Your task to perform on an android device: Open ESPN.com Image 0: 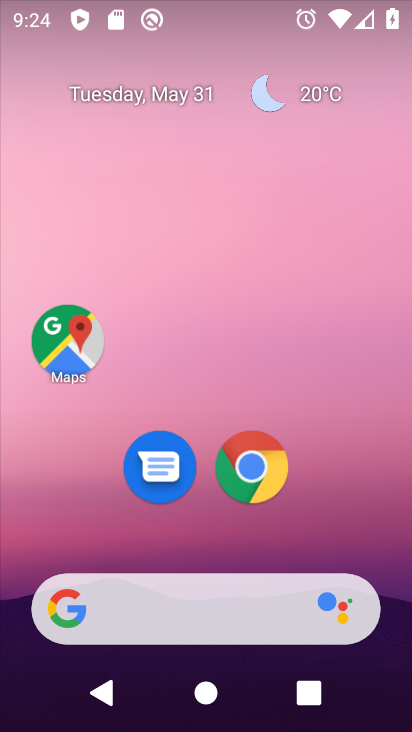
Step 0: drag from (181, 530) to (344, 49)
Your task to perform on an android device: Open ESPN.com Image 1: 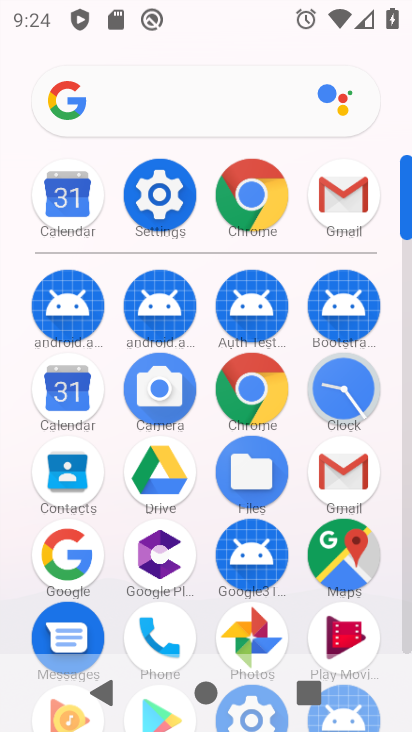
Step 1: click (152, 115)
Your task to perform on an android device: Open ESPN.com Image 2: 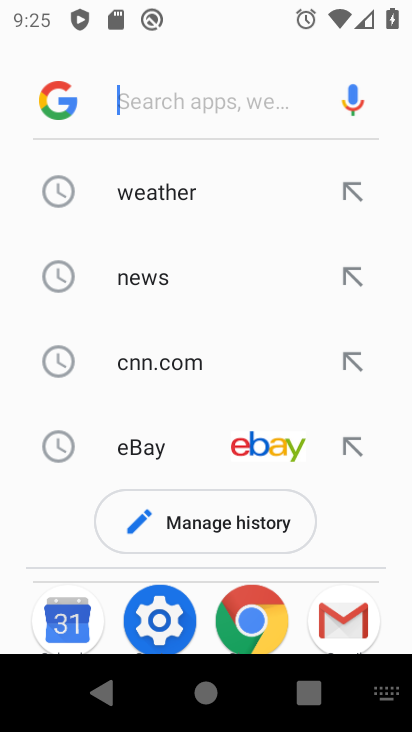
Step 2: type "ESPN.com"
Your task to perform on an android device: Open ESPN.com Image 3: 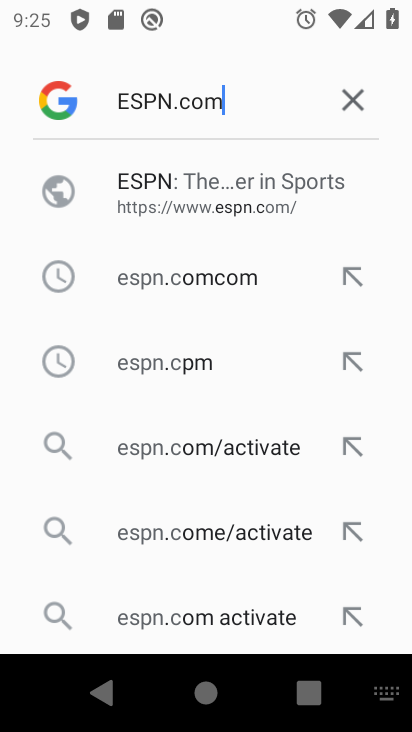
Step 3: type ""
Your task to perform on an android device: Open ESPN.com Image 4: 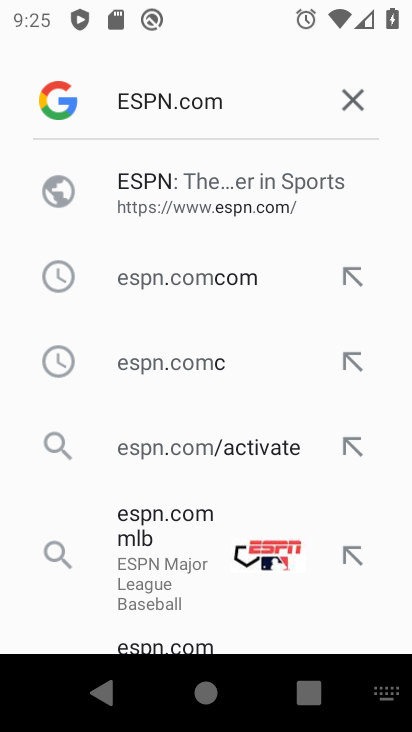
Step 4: click (154, 183)
Your task to perform on an android device: Open ESPN.com Image 5: 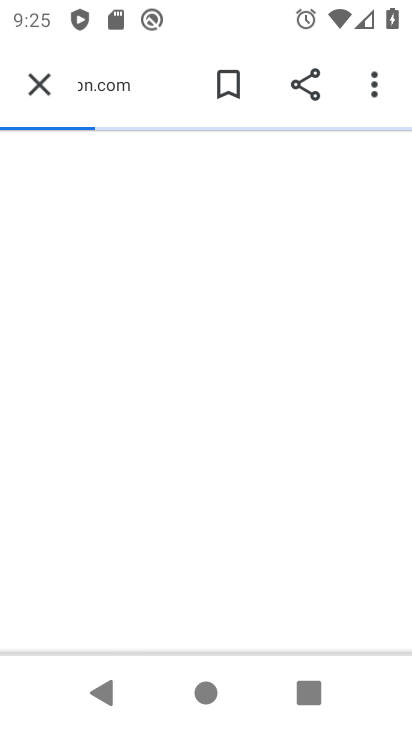
Step 5: task complete